Your task to perform on an android device: Go to display settings Image 0: 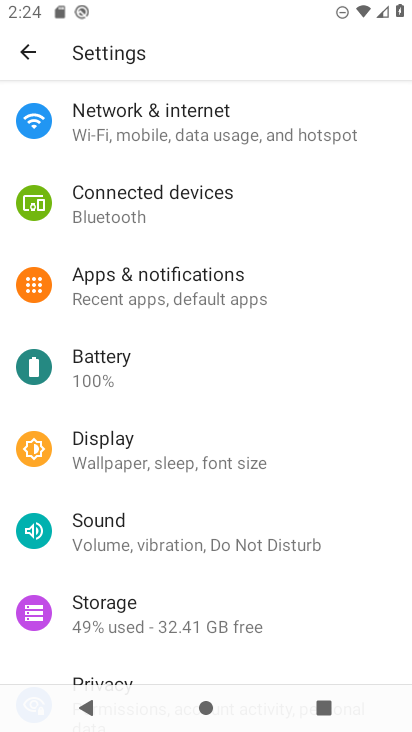
Step 0: click (217, 444)
Your task to perform on an android device: Go to display settings Image 1: 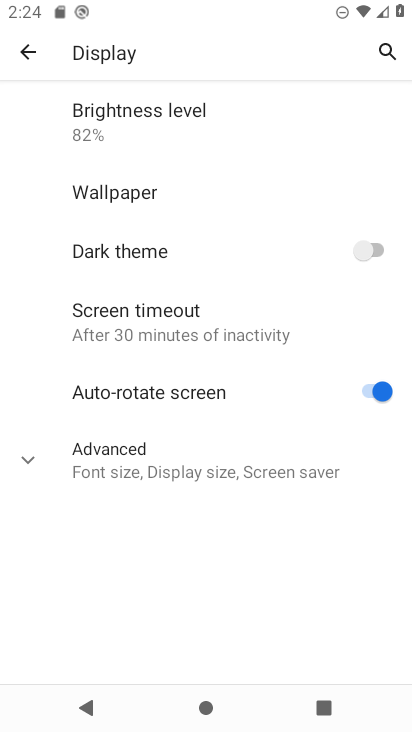
Step 1: task complete